Your task to perform on an android device: turn on data saver in the chrome app Image 0: 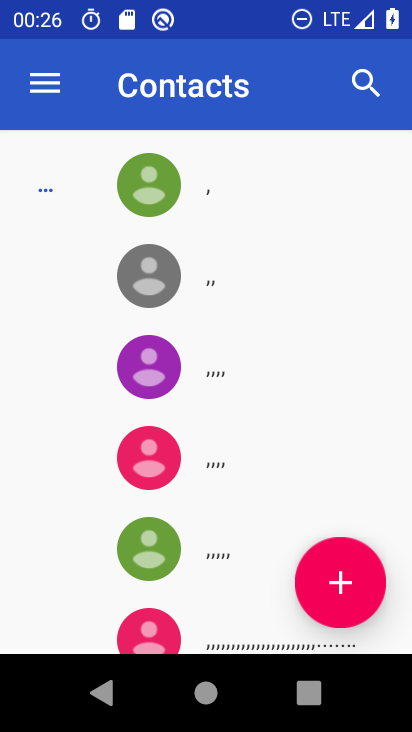
Step 0: press home button
Your task to perform on an android device: turn on data saver in the chrome app Image 1: 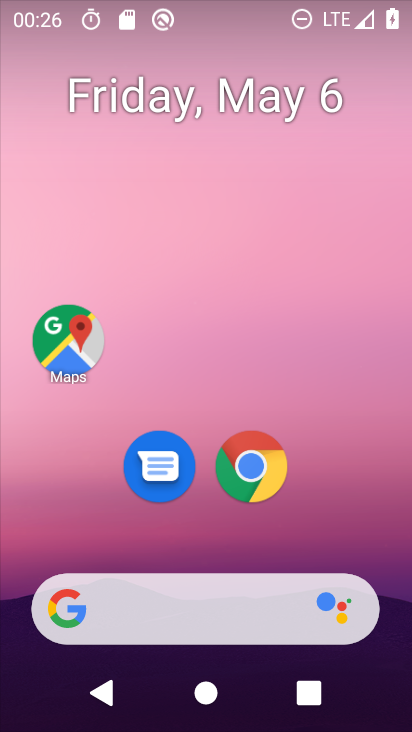
Step 1: click (267, 464)
Your task to perform on an android device: turn on data saver in the chrome app Image 2: 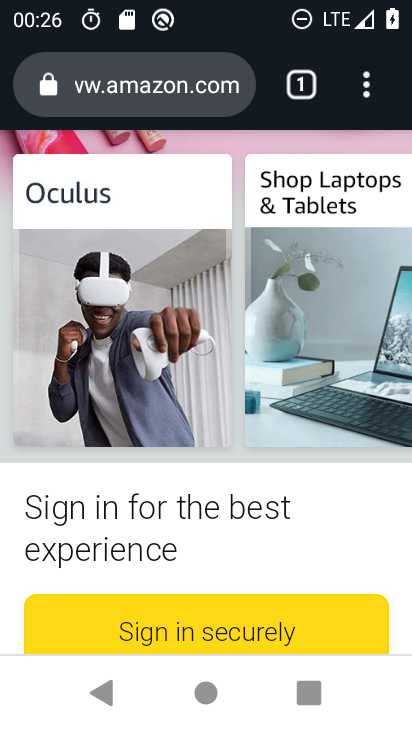
Step 2: click (370, 82)
Your task to perform on an android device: turn on data saver in the chrome app Image 3: 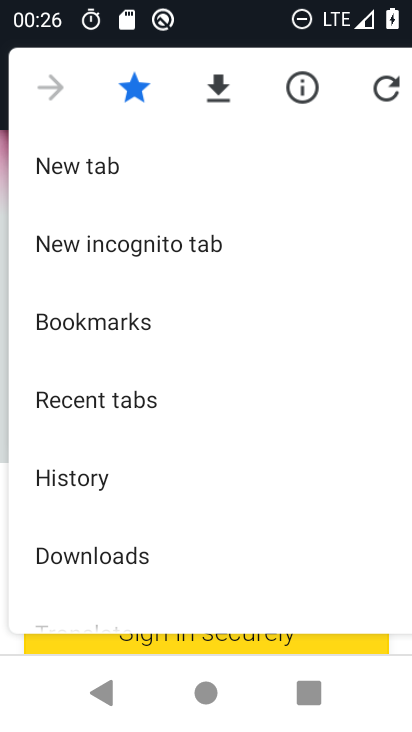
Step 3: drag from (99, 574) to (142, 290)
Your task to perform on an android device: turn on data saver in the chrome app Image 4: 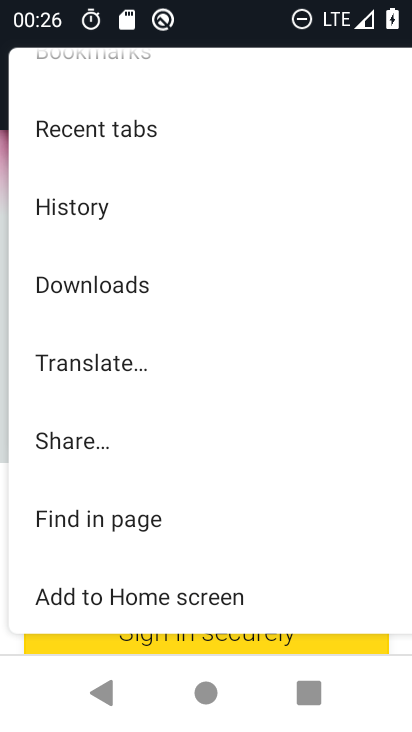
Step 4: drag from (97, 573) to (132, 291)
Your task to perform on an android device: turn on data saver in the chrome app Image 5: 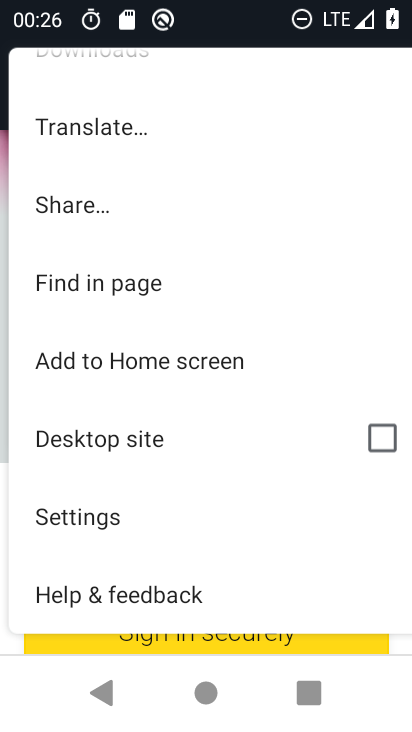
Step 5: click (99, 518)
Your task to perform on an android device: turn on data saver in the chrome app Image 6: 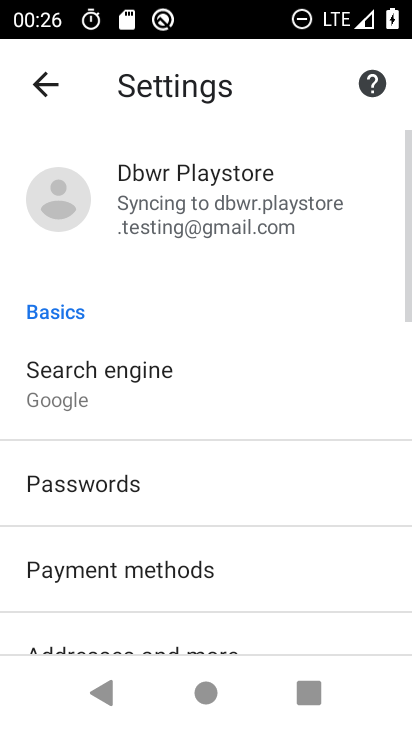
Step 6: drag from (125, 619) to (153, 310)
Your task to perform on an android device: turn on data saver in the chrome app Image 7: 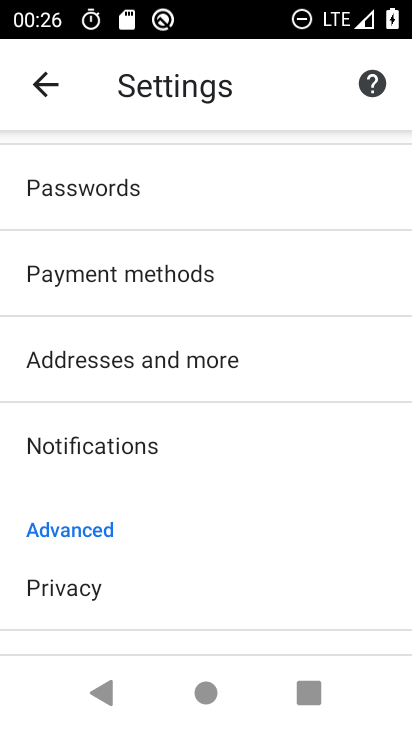
Step 7: drag from (109, 613) to (143, 323)
Your task to perform on an android device: turn on data saver in the chrome app Image 8: 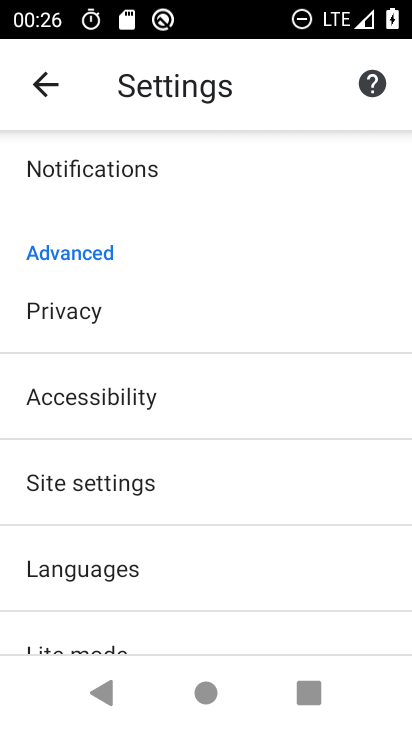
Step 8: drag from (73, 627) to (91, 406)
Your task to perform on an android device: turn on data saver in the chrome app Image 9: 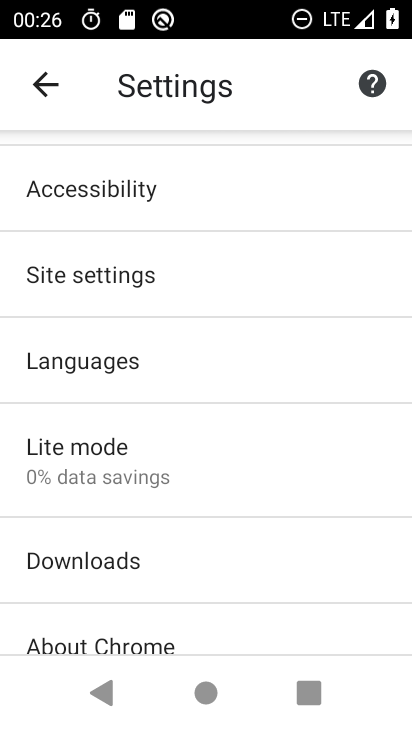
Step 9: click (82, 455)
Your task to perform on an android device: turn on data saver in the chrome app Image 10: 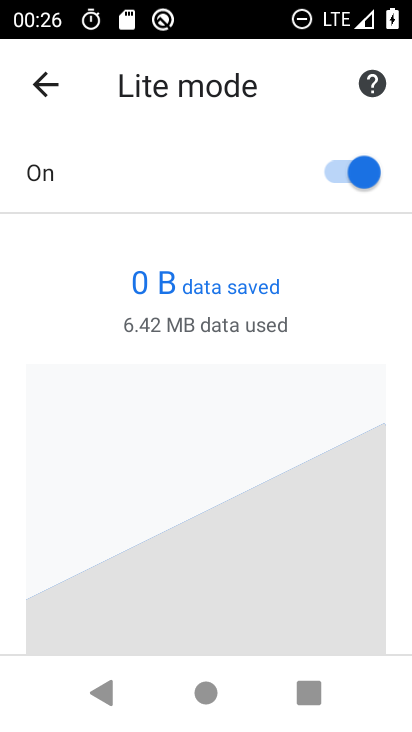
Step 10: task complete